Your task to perform on an android device: Search for hotels in Philadelphia Image 0: 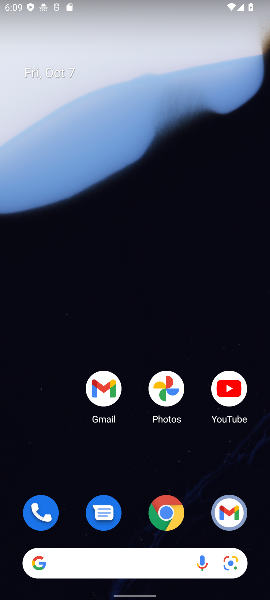
Step 0: click (135, 554)
Your task to perform on an android device: Search for hotels in Philadelphia Image 1: 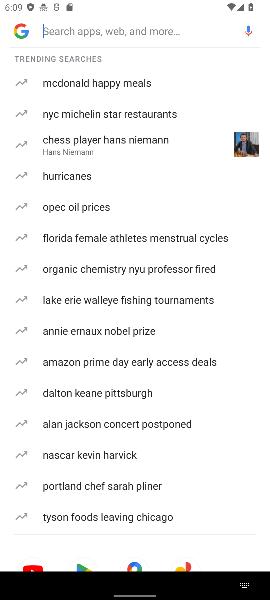
Step 1: type "Search for hotels in Philadelphia"
Your task to perform on an android device: Search for hotels in Philadelphia Image 2: 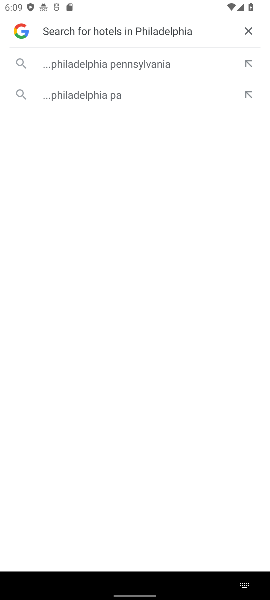
Step 2: click (138, 60)
Your task to perform on an android device: Search for hotels in Philadelphia Image 3: 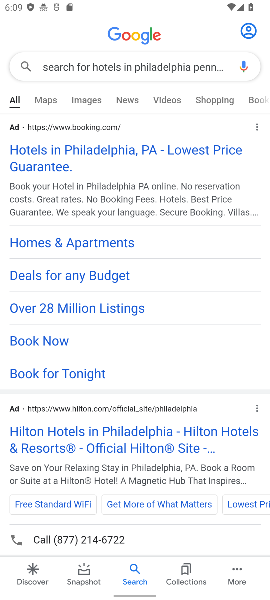
Step 3: click (89, 151)
Your task to perform on an android device: Search for hotels in Philadelphia Image 4: 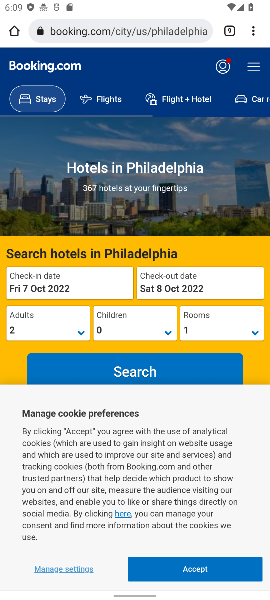
Step 4: click (150, 375)
Your task to perform on an android device: Search for hotels in Philadelphia Image 5: 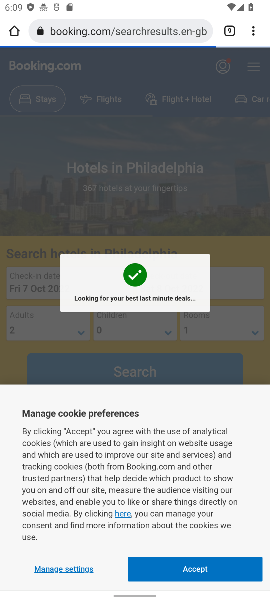
Step 5: click (210, 572)
Your task to perform on an android device: Search for hotels in Philadelphia Image 6: 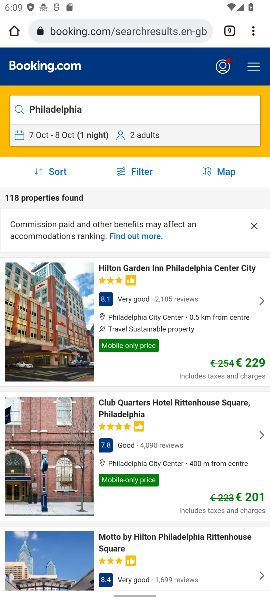
Step 6: task complete